Your task to perform on an android device: Check the weather Image 0: 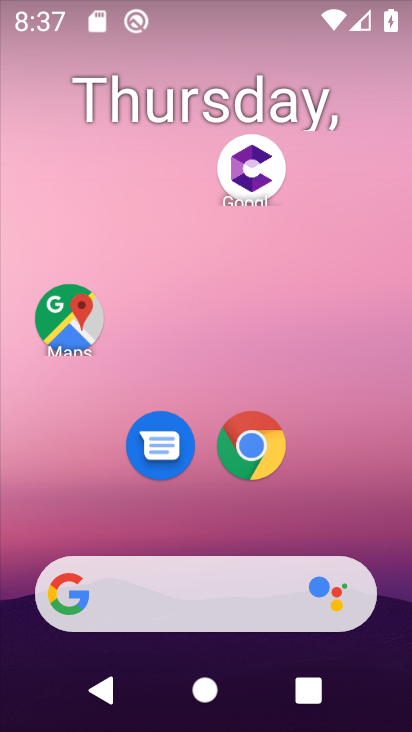
Step 0: drag from (198, 512) to (240, 1)
Your task to perform on an android device: Check the weather Image 1: 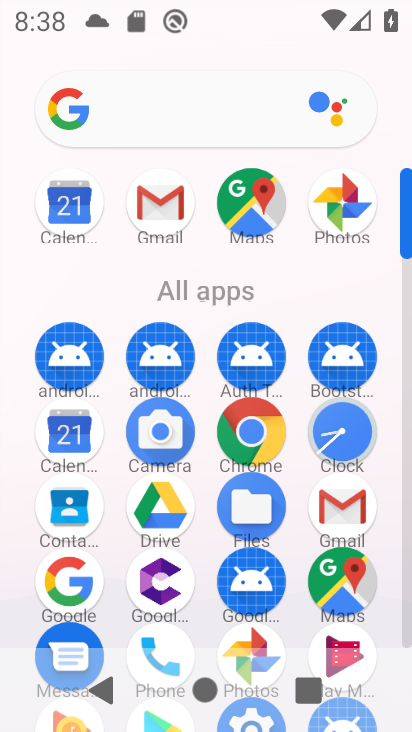
Step 1: click (250, 445)
Your task to perform on an android device: Check the weather Image 2: 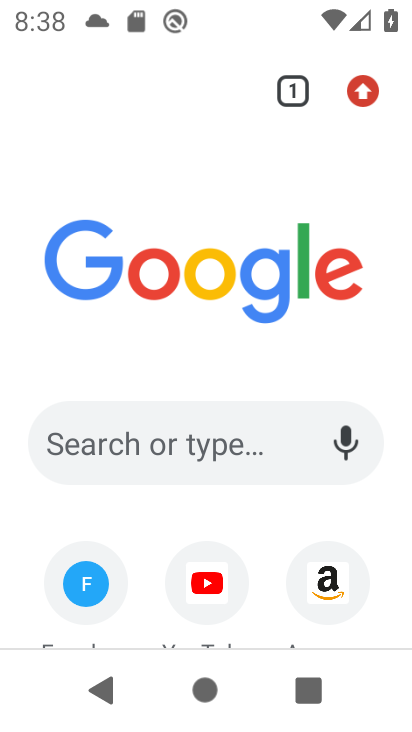
Step 2: click (201, 458)
Your task to perform on an android device: Check the weather Image 3: 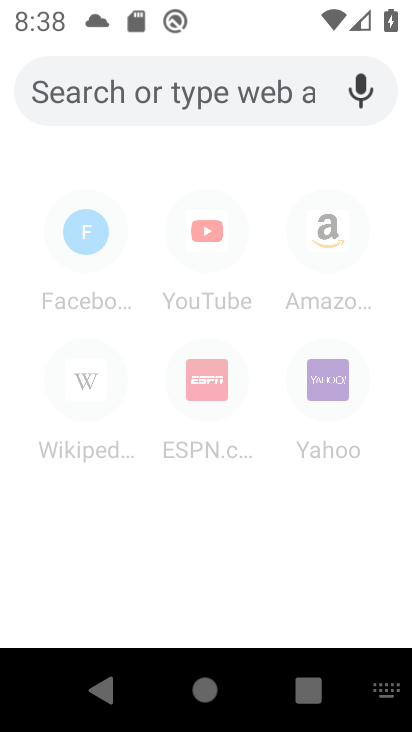
Step 3: type "weather"
Your task to perform on an android device: Check the weather Image 4: 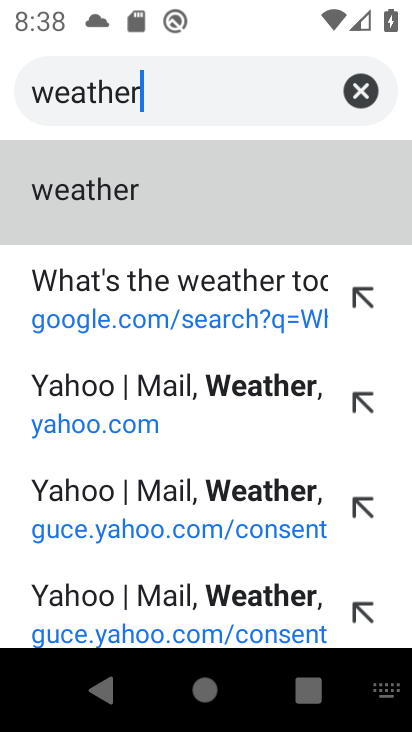
Step 4: click (150, 202)
Your task to perform on an android device: Check the weather Image 5: 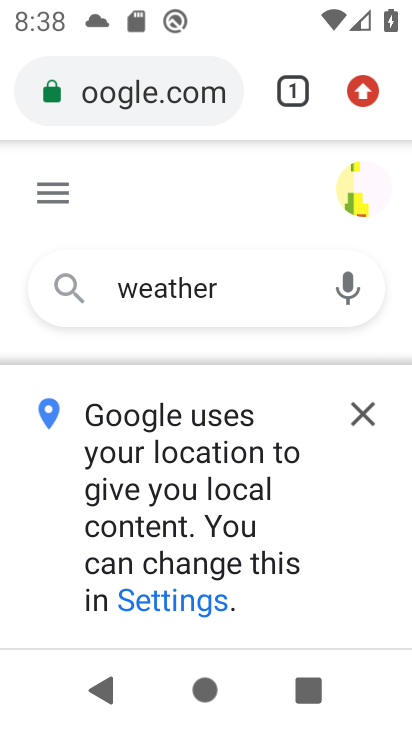
Step 5: click (360, 410)
Your task to perform on an android device: Check the weather Image 6: 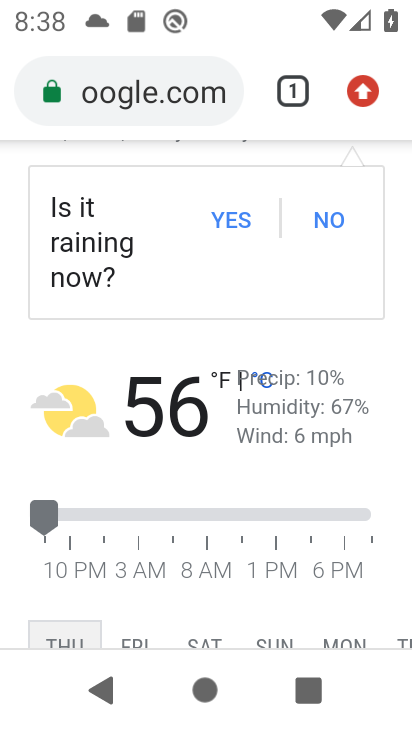
Step 6: task complete